Your task to perform on an android device: delete a single message in the gmail app Image 0: 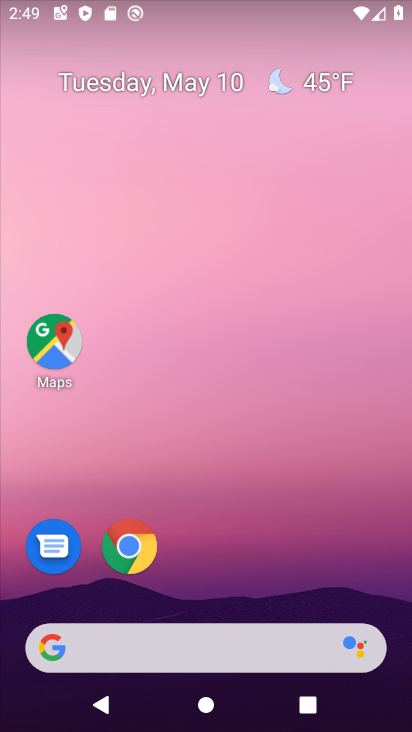
Step 0: drag from (272, 519) to (225, 5)
Your task to perform on an android device: delete a single message in the gmail app Image 1: 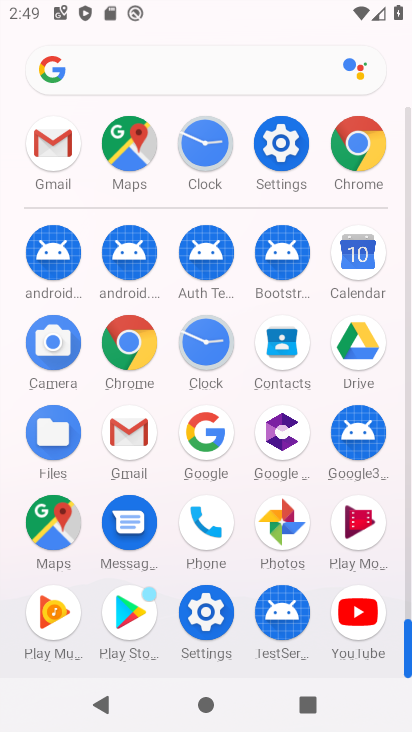
Step 1: click (128, 432)
Your task to perform on an android device: delete a single message in the gmail app Image 2: 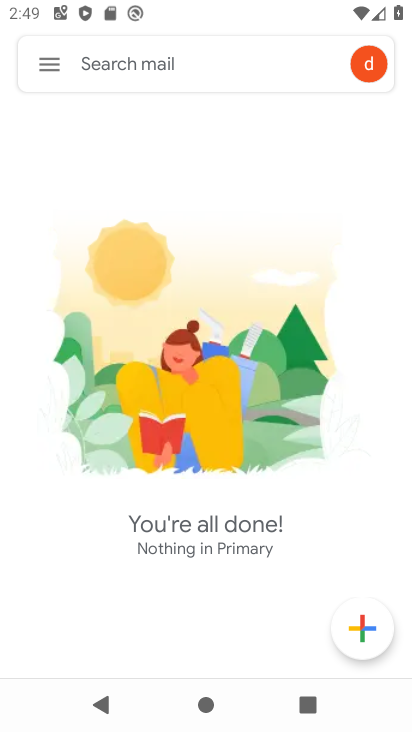
Step 2: click (58, 61)
Your task to perform on an android device: delete a single message in the gmail app Image 3: 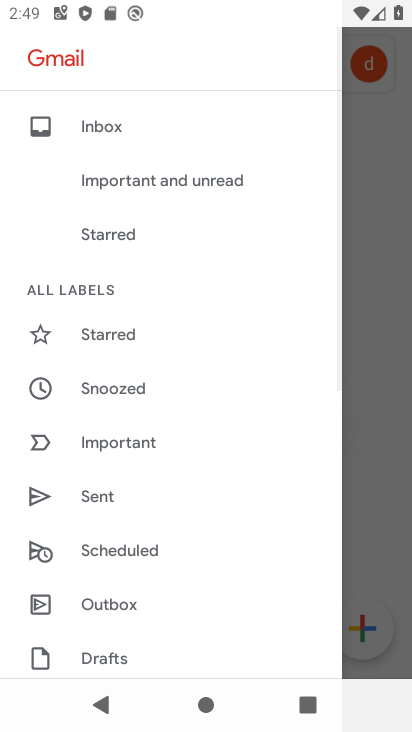
Step 3: drag from (261, 593) to (185, 144)
Your task to perform on an android device: delete a single message in the gmail app Image 4: 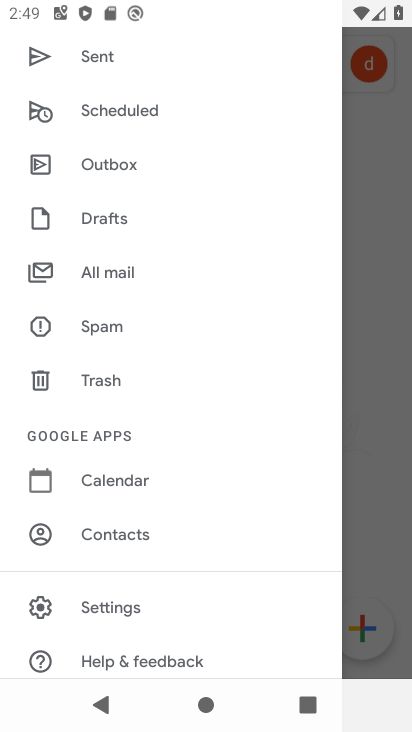
Step 4: drag from (180, 568) to (241, 117)
Your task to perform on an android device: delete a single message in the gmail app Image 5: 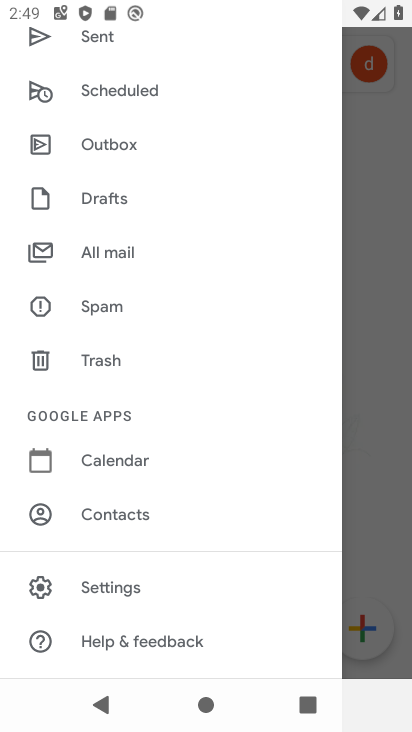
Step 5: drag from (185, 476) to (190, 134)
Your task to perform on an android device: delete a single message in the gmail app Image 6: 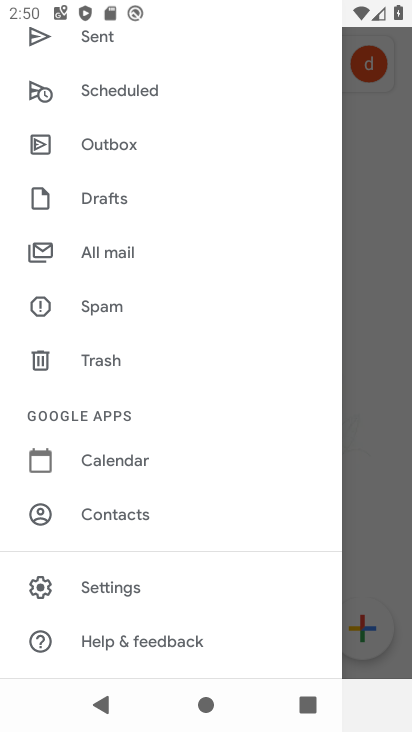
Step 6: drag from (192, 88) to (207, 485)
Your task to perform on an android device: delete a single message in the gmail app Image 7: 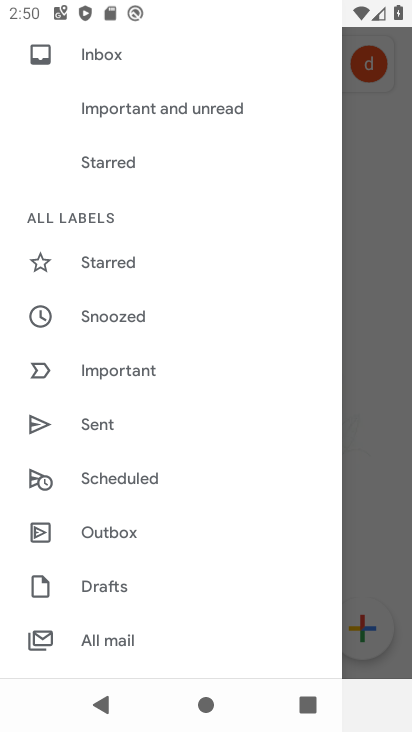
Step 7: drag from (231, 115) to (206, 459)
Your task to perform on an android device: delete a single message in the gmail app Image 8: 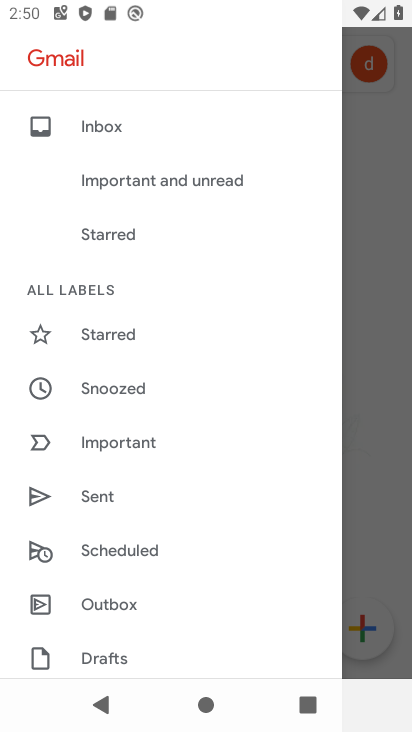
Step 8: click (144, 321)
Your task to perform on an android device: delete a single message in the gmail app Image 9: 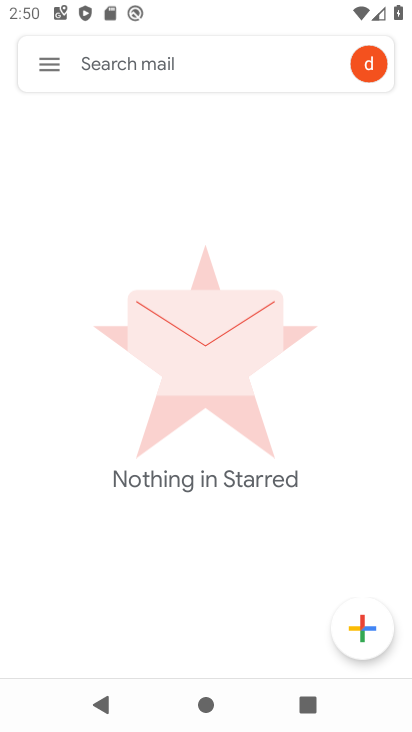
Step 9: click (56, 78)
Your task to perform on an android device: delete a single message in the gmail app Image 10: 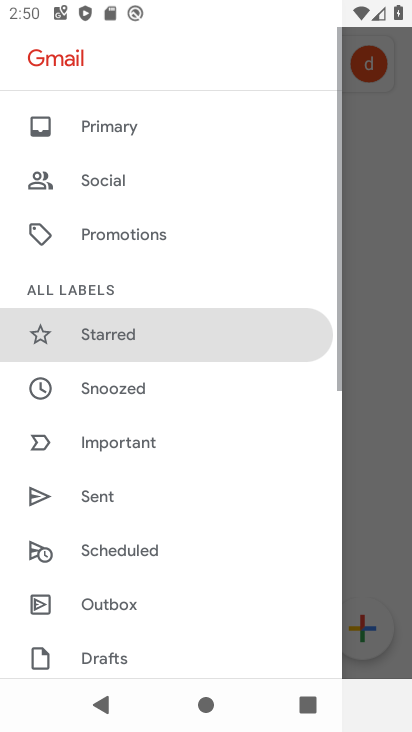
Step 10: drag from (94, 563) to (165, 73)
Your task to perform on an android device: delete a single message in the gmail app Image 11: 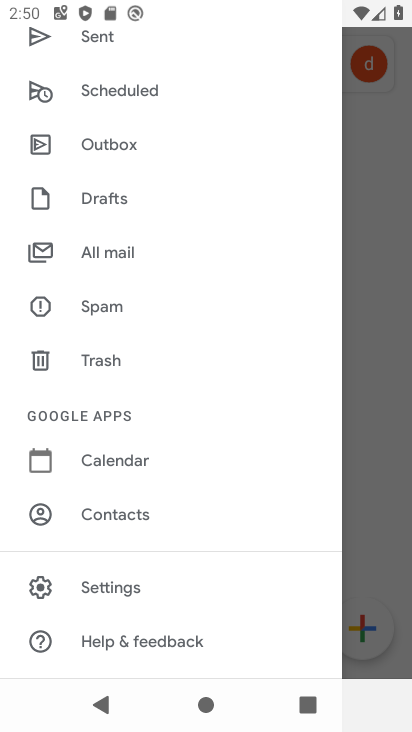
Step 11: click (132, 246)
Your task to perform on an android device: delete a single message in the gmail app Image 12: 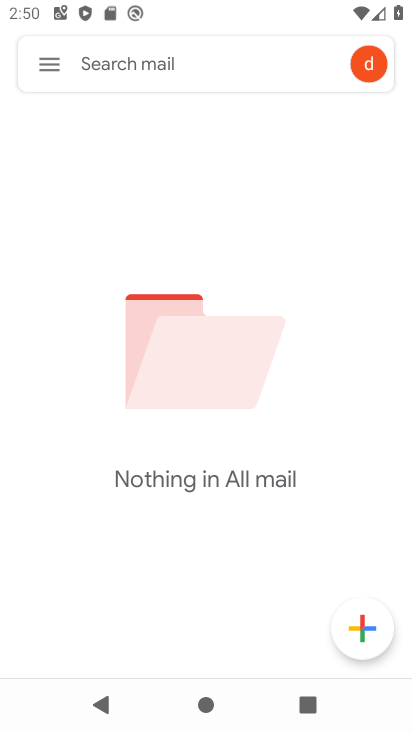
Step 12: task complete